Your task to perform on an android device: turn off location history Image 0: 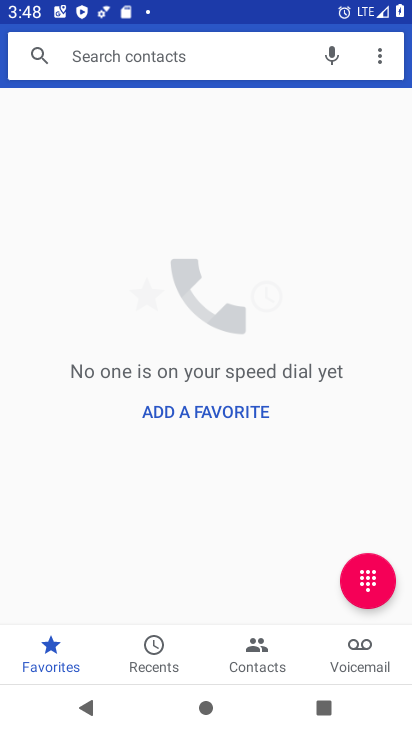
Step 0: press home button
Your task to perform on an android device: turn off location history Image 1: 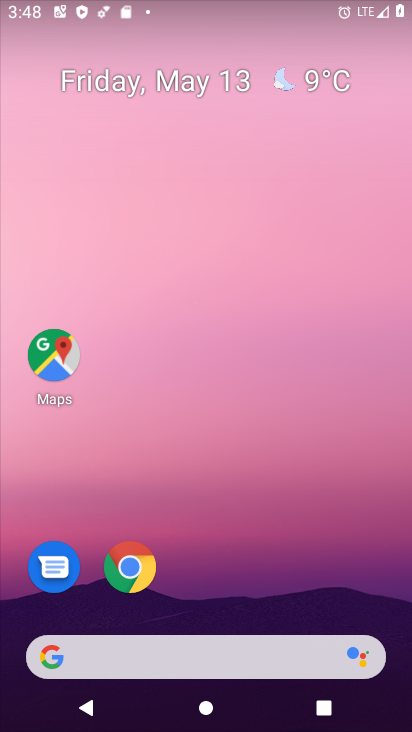
Step 1: click (62, 356)
Your task to perform on an android device: turn off location history Image 2: 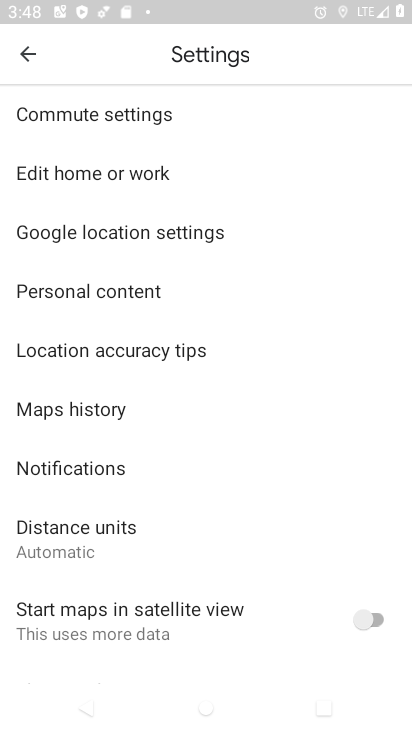
Step 2: click (29, 49)
Your task to perform on an android device: turn off location history Image 3: 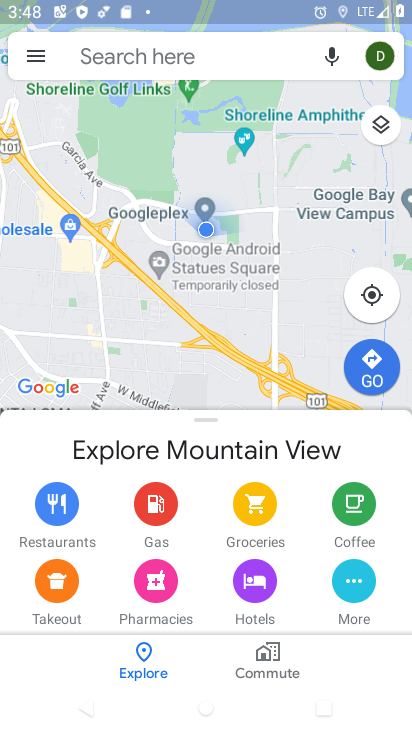
Step 3: click (34, 60)
Your task to perform on an android device: turn off location history Image 4: 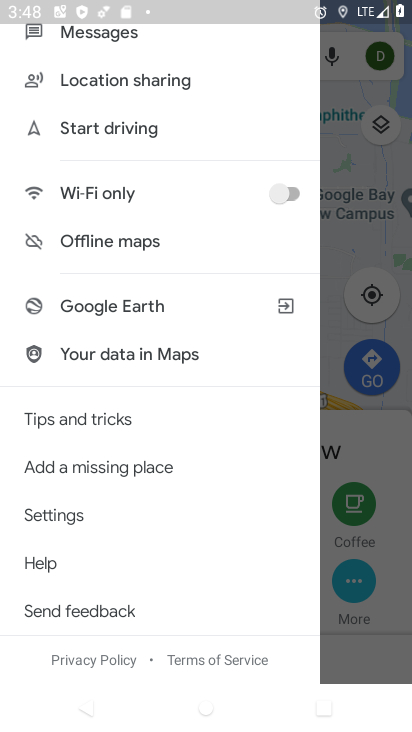
Step 4: drag from (123, 186) to (149, 628)
Your task to perform on an android device: turn off location history Image 5: 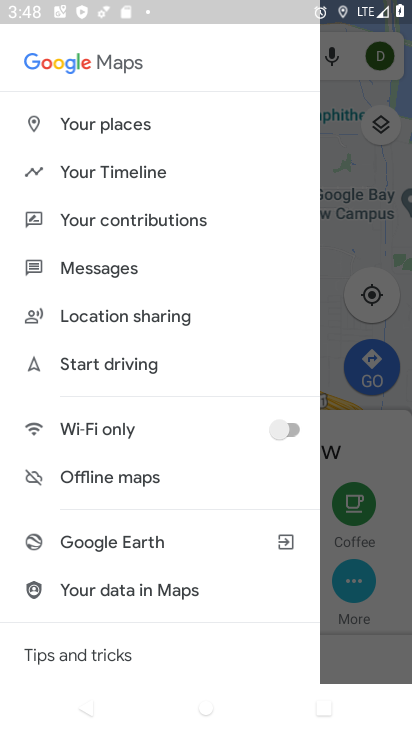
Step 5: click (84, 184)
Your task to perform on an android device: turn off location history Image 6: 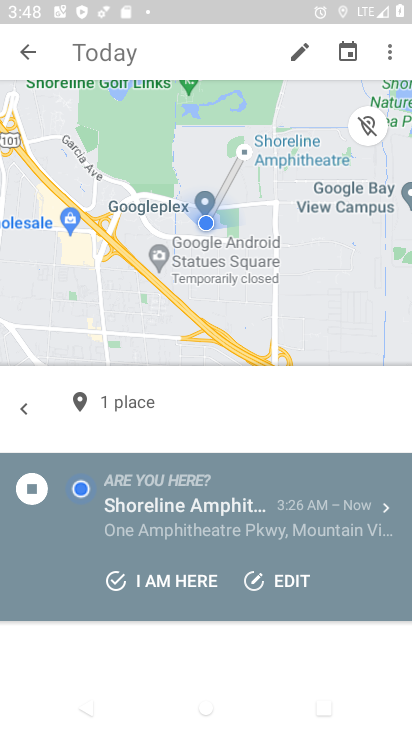
Step 6: click (390, 48)
Your task to perform on an android device: turn off location history Image 7: 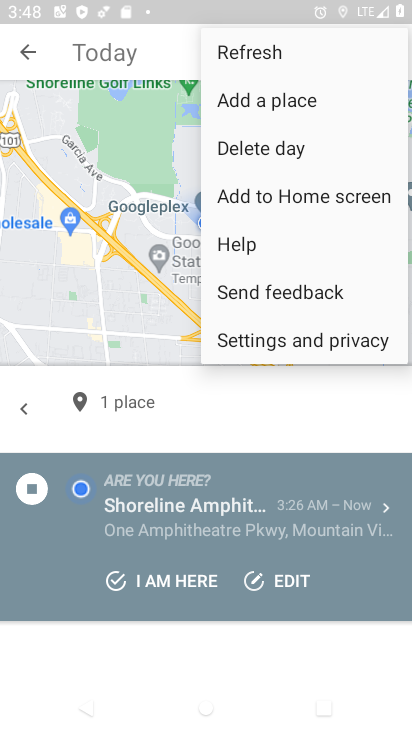
Step 7: click (284, 347)
Your task to perform on an android device: turn off location history Image 8: 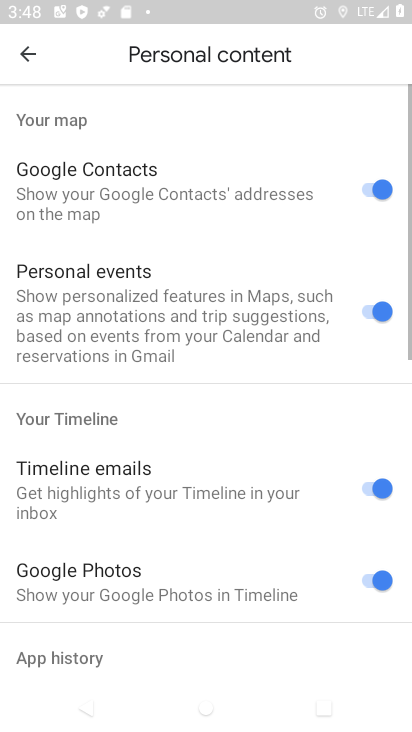
Step 8: drag from (129, 520) to (95, 98)
Your task to perform on an android device: turn off location history Image 9: 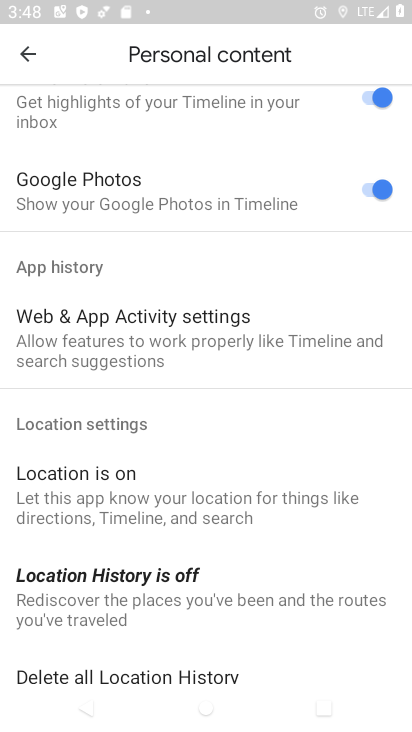
Step 9: click (119, 586)
Your task to perform on an android device: turn off location history Image 10: 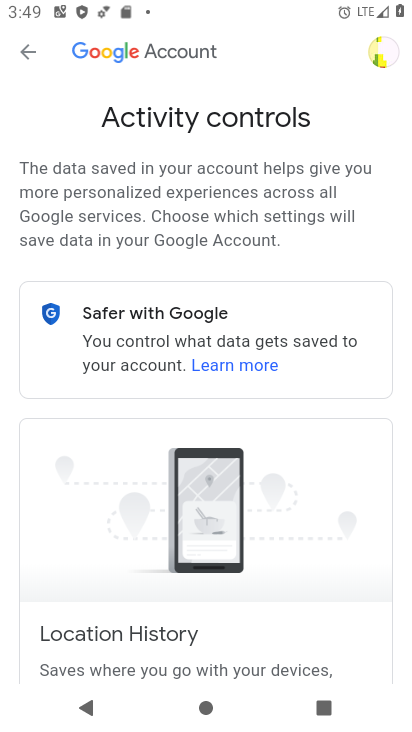
Step 10: task complete